Your task to perform on an android device: What is the news today? Image 0: 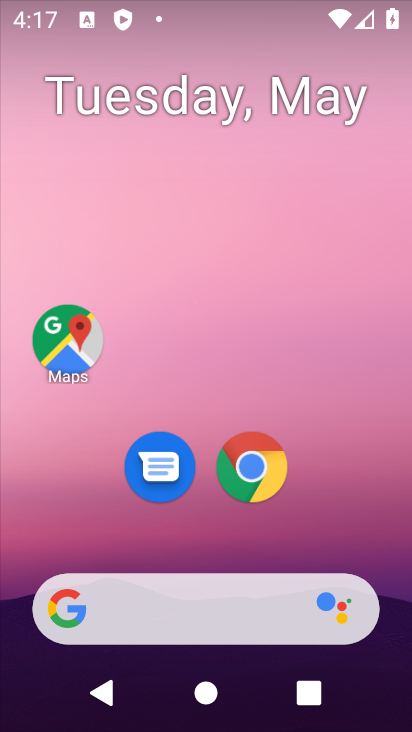
Step 0: click (222, 614)
Your task to perform on an android device: What is the news today? Image 1: 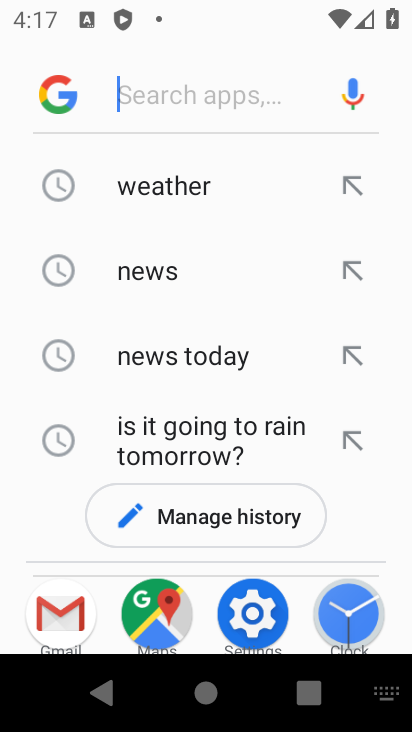
Step 1: click (243, 356)
Your task to perform on an android device: What is the news today? Image 2: 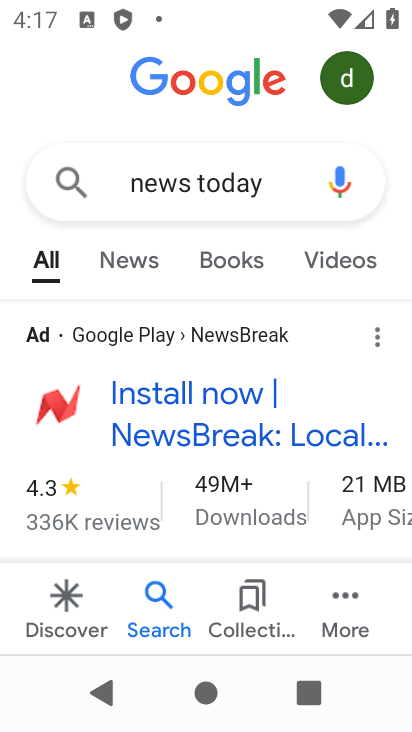
Step 2: task complete